Your task to perform on an android device: Open Amazon Image 0: 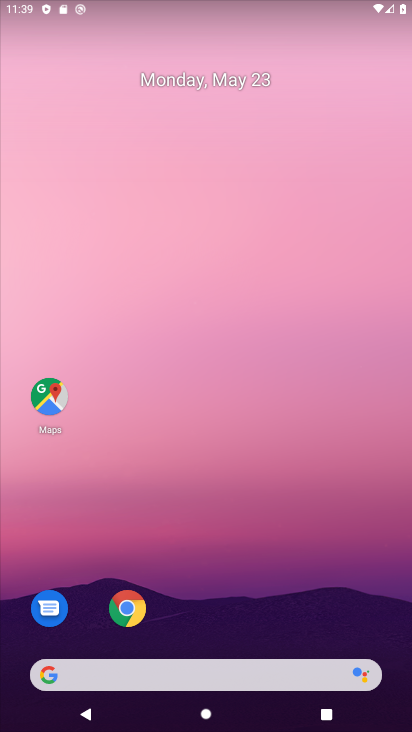
Step 0: click (125, 599)
Your task to perform on an android device: Open Amazon Image 1: 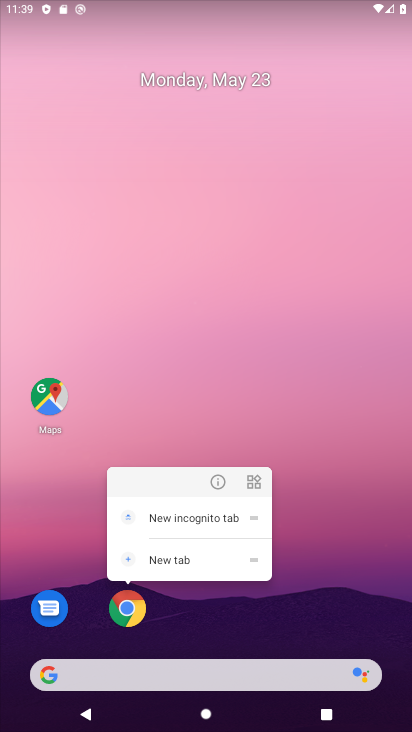
Step 1: click (126, 605)
Your task to perform on an android device: Open Amazon Image 2: 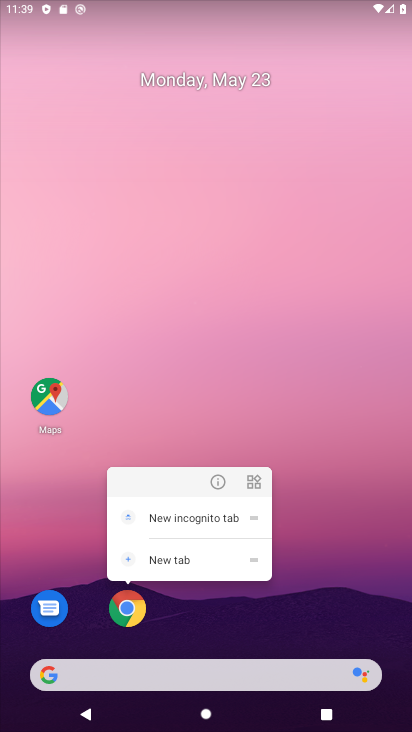
Step 2: click (125, 599)
Your task to perform on an android device: Open Amazon Image 3: 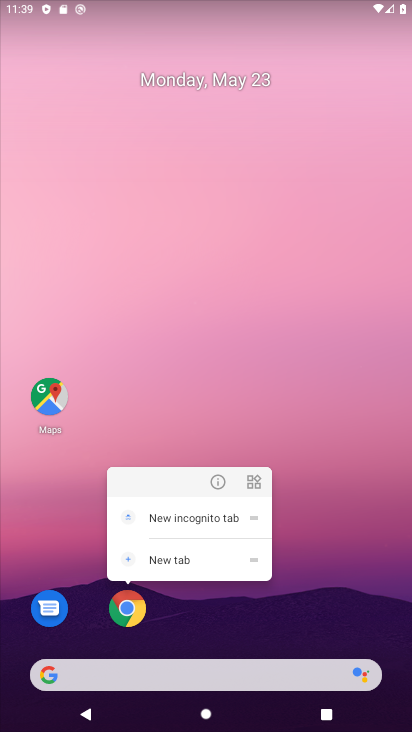
Step 3: click (195, 622)
Your task to perform on an android device: Open Amazon Image 4: 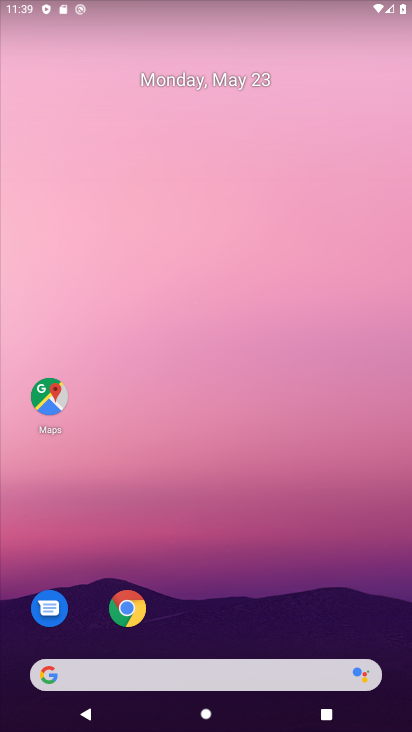
Step 4: click (125, 603)
Your task to perform on an android device: Open Amazon Image 5: 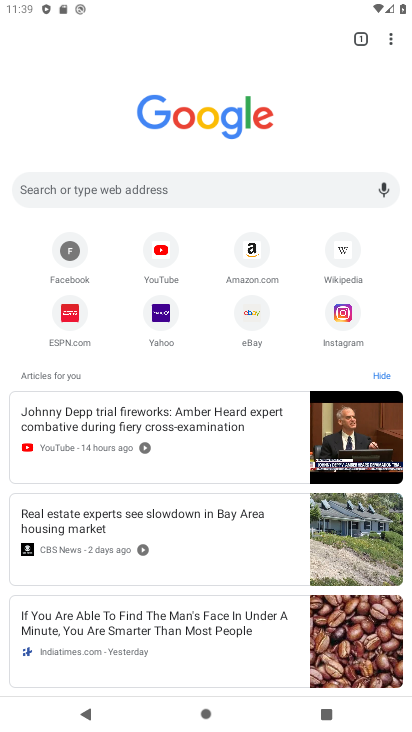
Step 5: click (250, 242)
Your task to perform on an android device: Open Amazon Image 6: 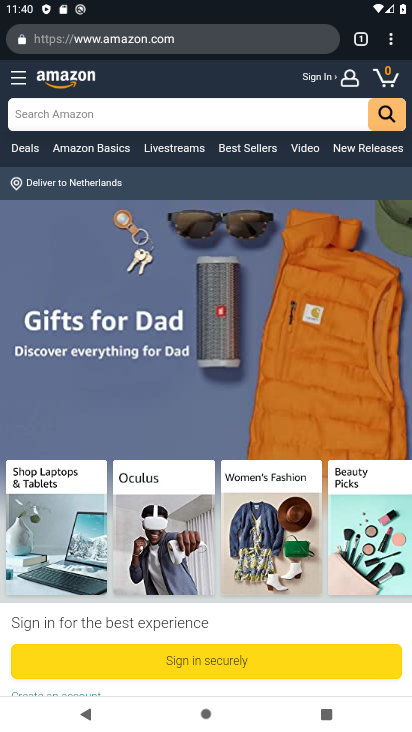
Step 6: task complete